Your task to perform on an android device: Go to battery settings Image 0: 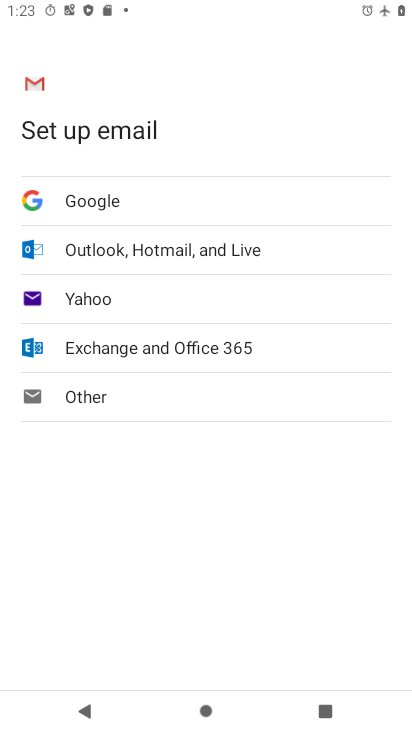
Step 0: press home button
Your task to perform on an android device: Go to battery settings Image 1: 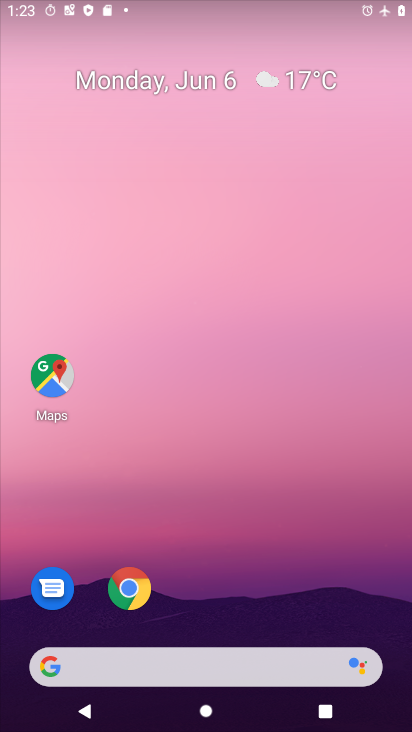
Step 1: drag from (293, 519) to (263, 134)
Your task to perform on an android device: Go to battery settings Image 2: 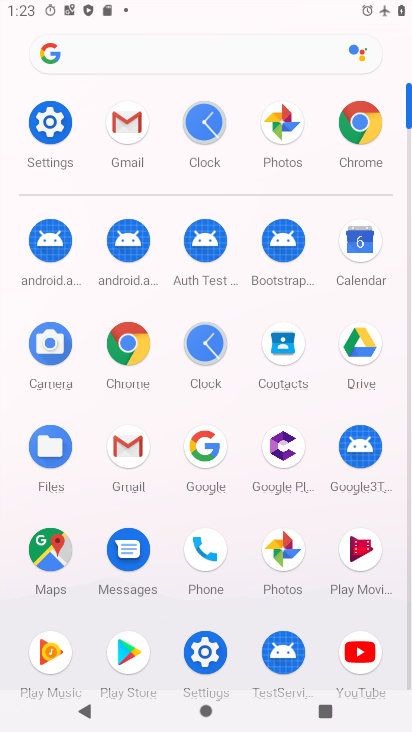
Step 2: click (41, 132)
Your task to perform on an android device: Go to battery settings Image 3: 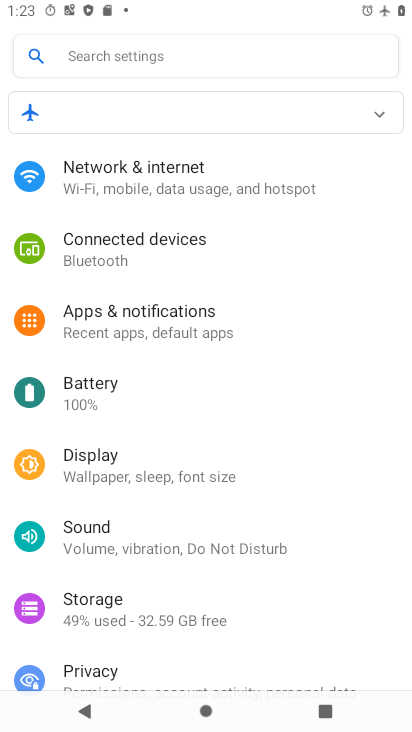
Step 3: drag from (238, 624) to (213, 203)
Your task to perform on an android device: Go to battery settings Image 4: 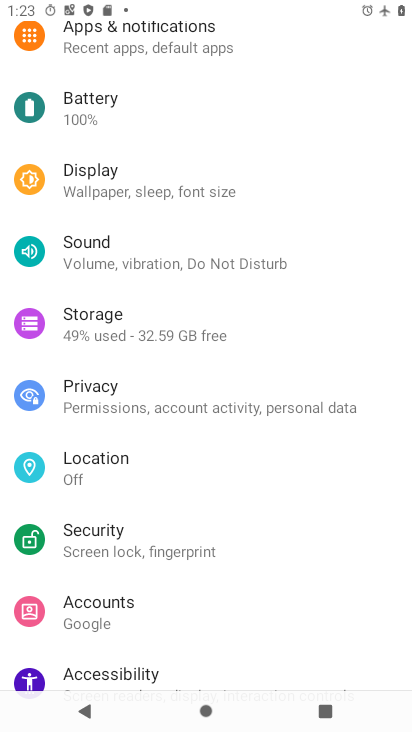
Step 4: click (87, 103)
Your task to perform on an android device: Go to battery settings Image 5: 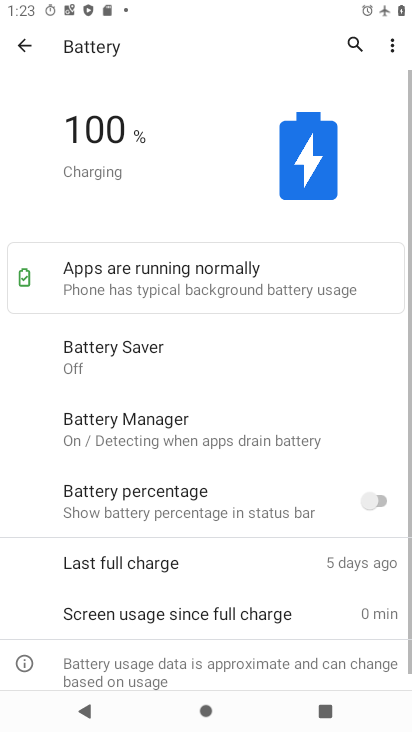
Step 5: task complete